Your task to perform on an android device: Search for logitech g910 on amazon, select the first entry, and add it to the cart. Image 0: 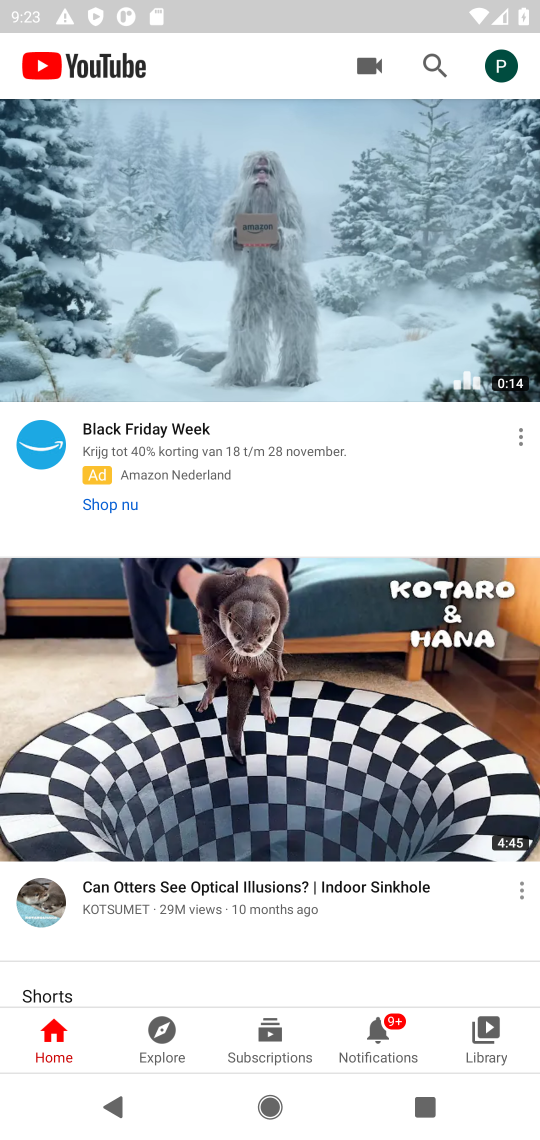
Step 0: press home button
Your task to perform on an android device: Search for logitech g910 on amazon, select the first entry, and add it to the cart. Image 1: 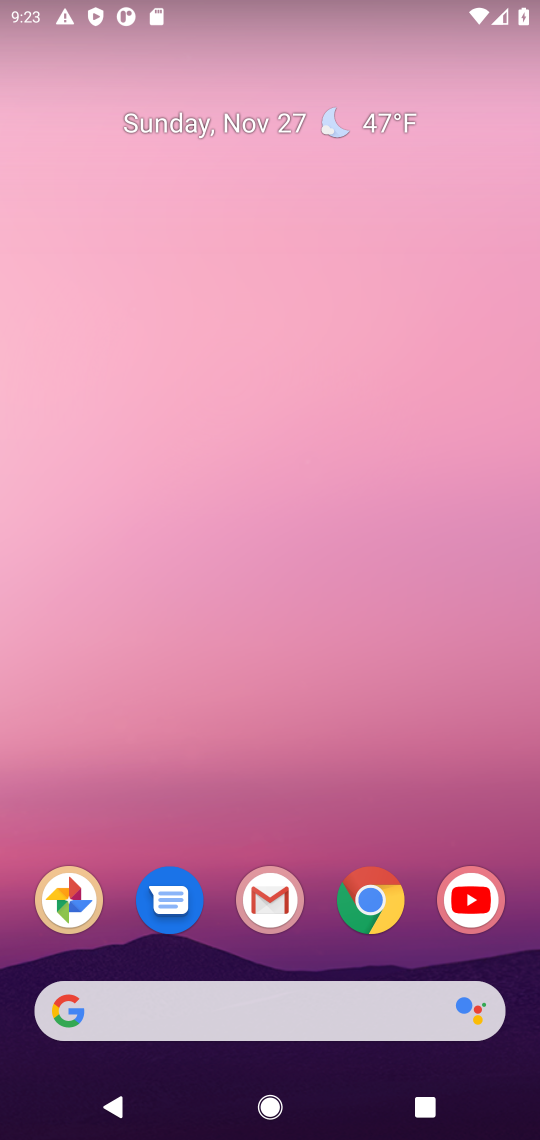
Step 1: click (366, 898)
Your task to perform on an android device: Search for logitech g910 on amazon, select the first entry, and add it to the cart. Image 2: 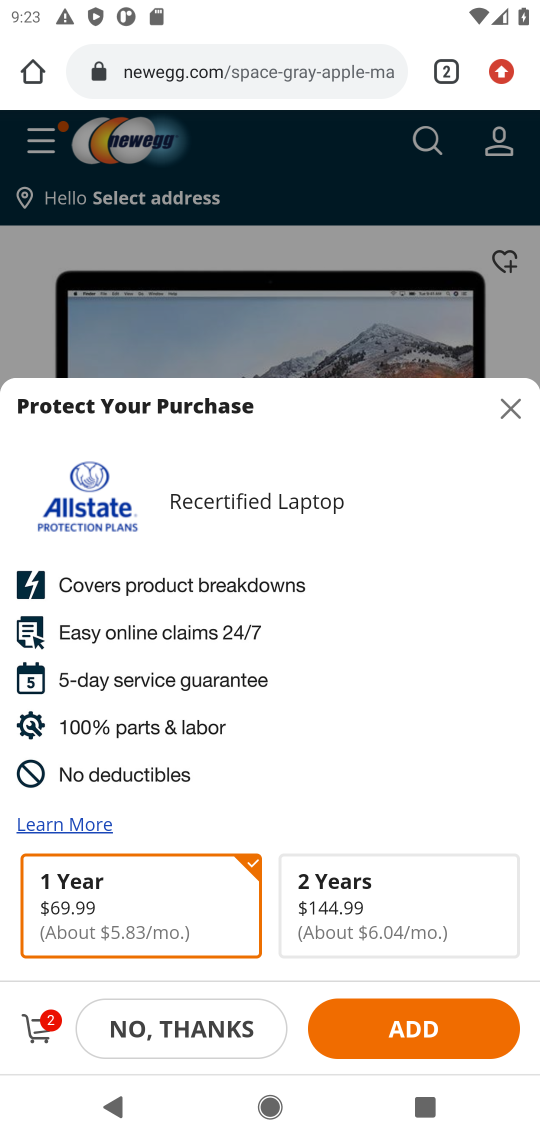
Step 2: click (258, 72)
Your task to perform on an android device: Search for logitech g910 on amazon, select the first entry, and add it to the cart. Image 3: 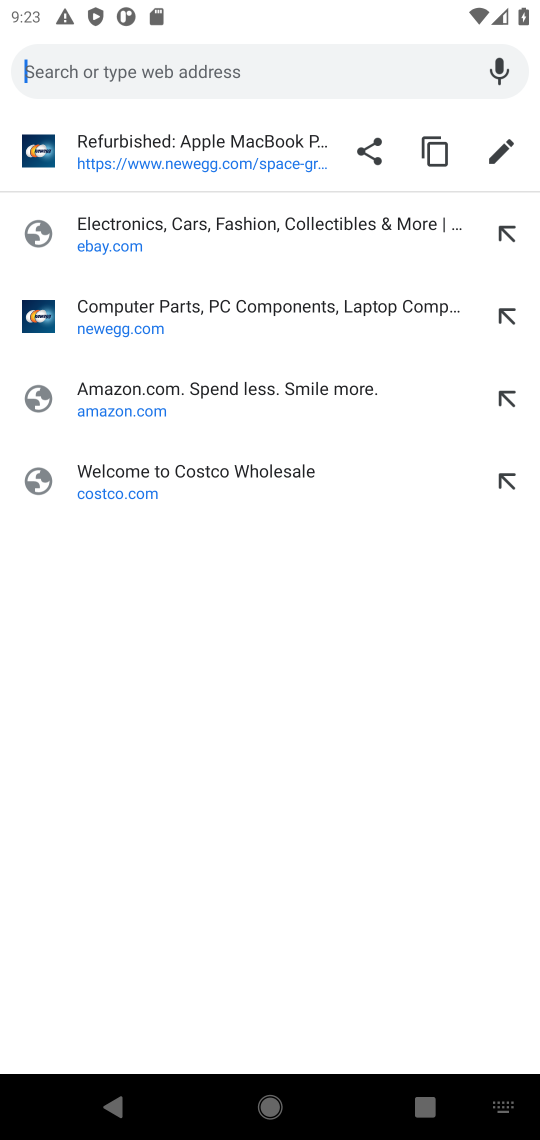
Step 3: click (91, 406)
Your task to perform on an android device: Search for logitech g910 on amazon, select the first entry, and add it to the cart. Image 4: 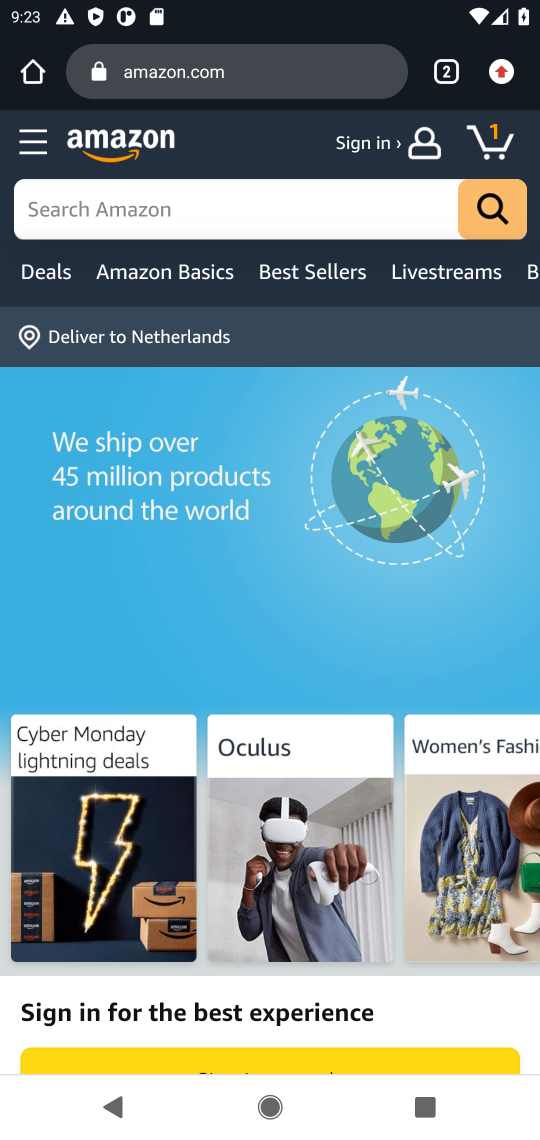
Step 4: click (120, 203)
Your task to perform on an android device: Search for logitech g910 on amazon, select the first entry, and add it to the cart. Image 5: 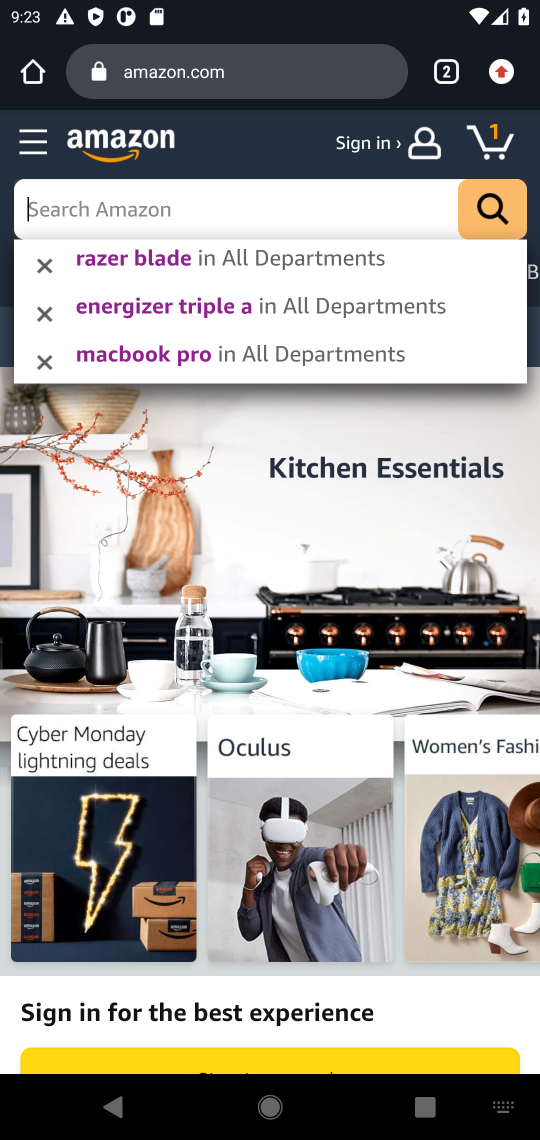
Step 5: type "logitech g910"
Your task to perform on an android device: Search for logitech g910 on amazon, select the first entry, and add it to the cart. Image 6: 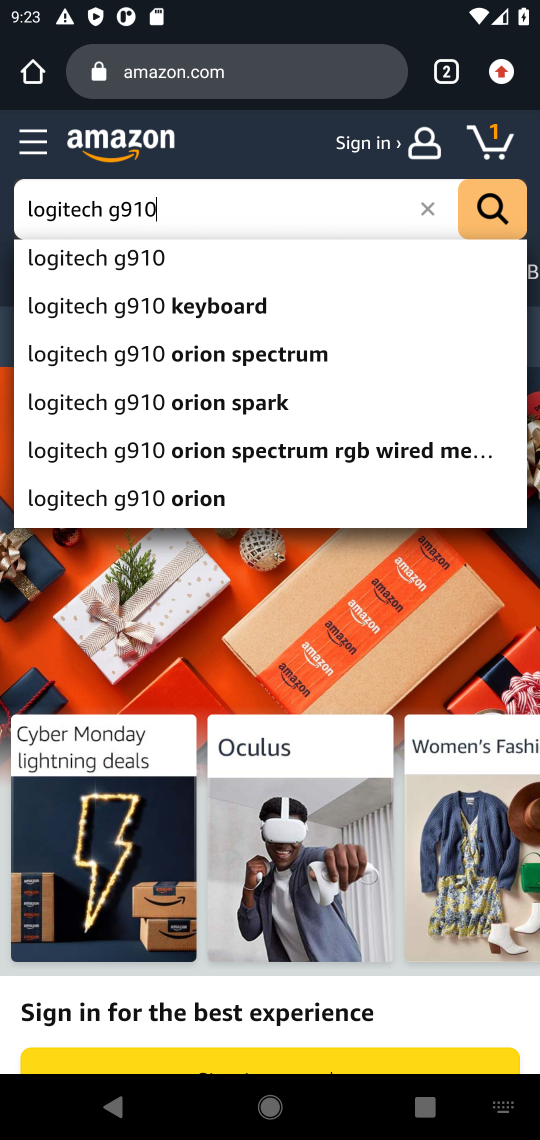
Step 6: click (94, 272)
Your task to perform on an android device: Search for logitech g910 on amazon, select the first entry, and add it to the cart. Image 7: 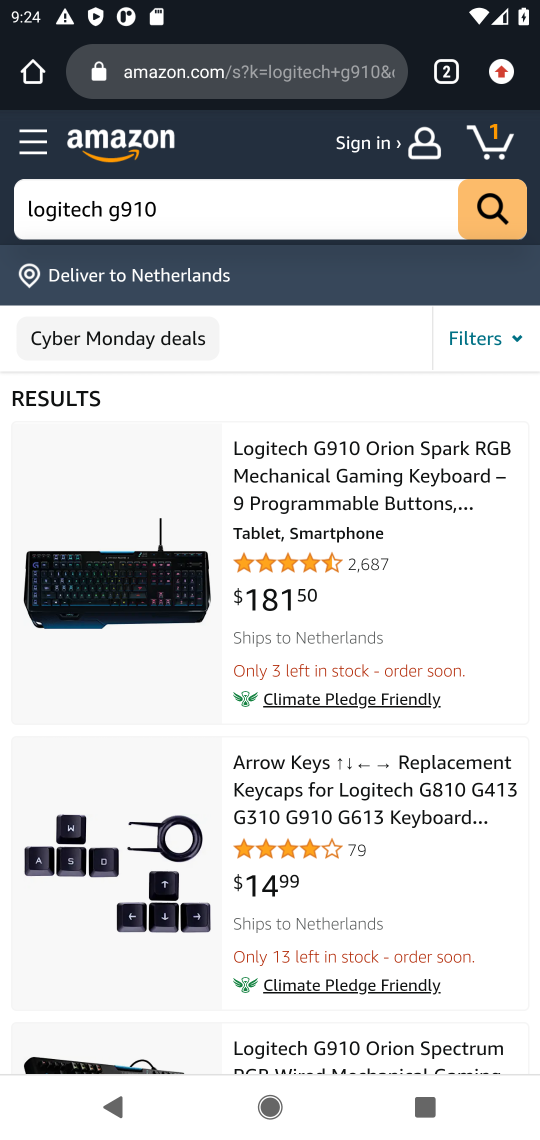
Step 7: click (341, 523)
Your task to perform on an android device: Search for logitech g910 on amazon, select the first entry, and add it to the cart. Image 8: 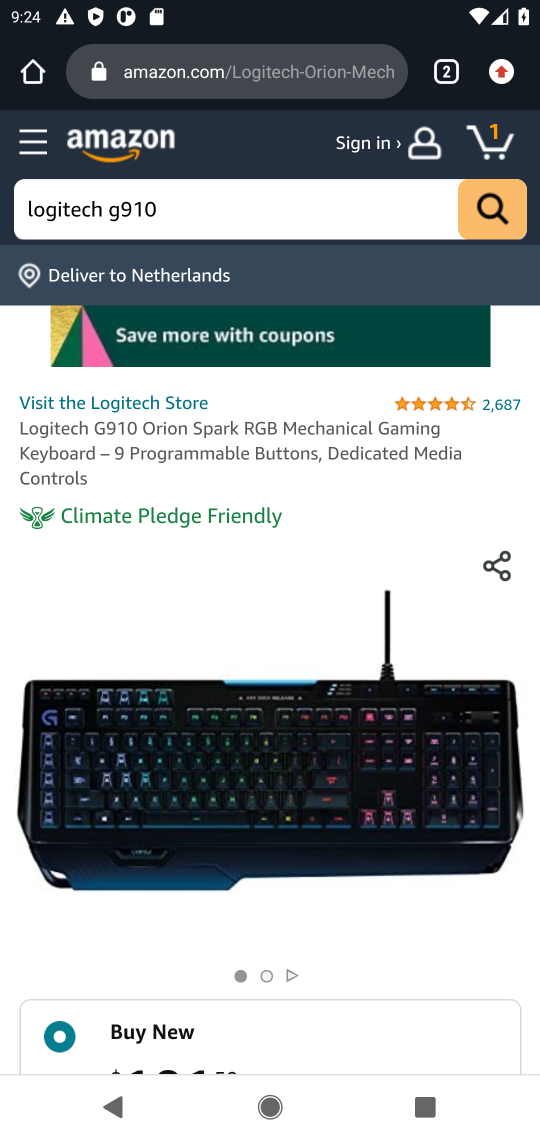
Step 8: drag from (273, 735) to (303, 427)
Your task to perform on an android device: Search for logitech g910 on amazon, select the first entry, and add it to the cart. Image 9: 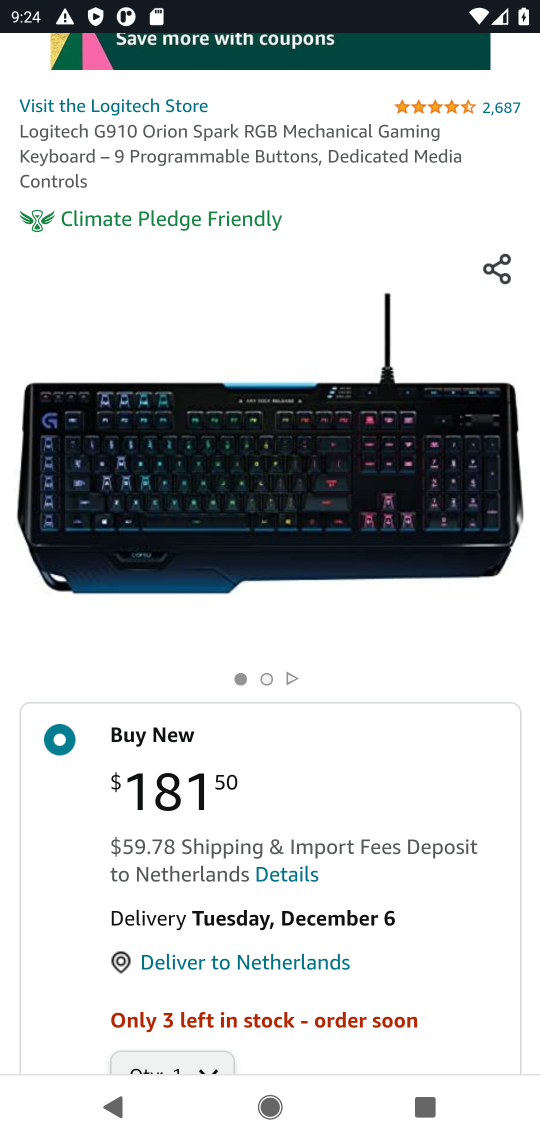
Step 9: drag from (284, 824) to (321, 484)
Your task to perform on an android device: Search for logitech g910 on amazon, select the first entry, and add it to the cart. Image 10: 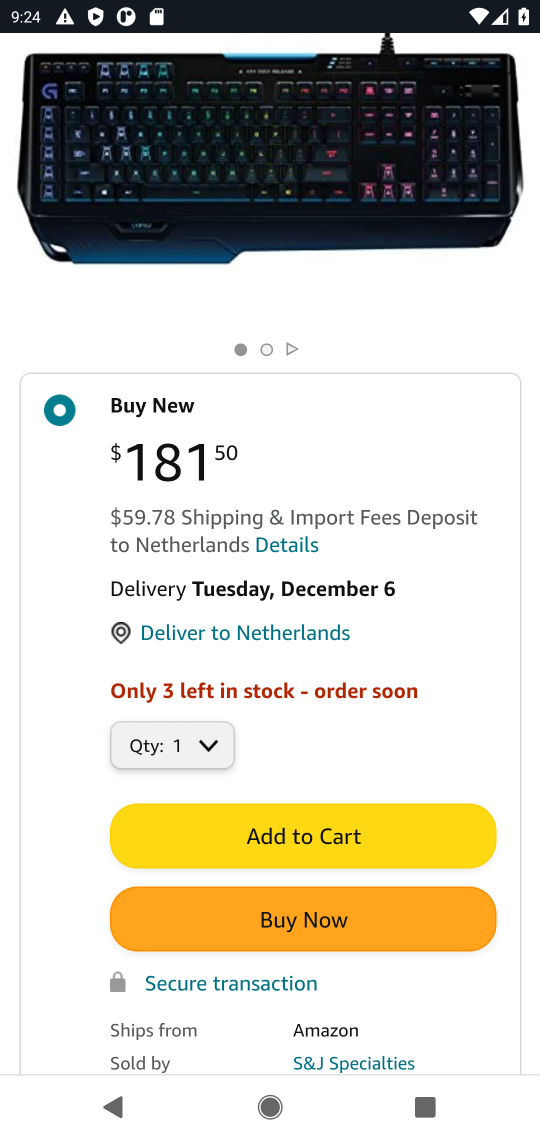
Step 10: click (288, 835)
Your task to perform on an android device: Search for logitech g910 on amazon, select the first entry, and add it to the cart. Image 11: 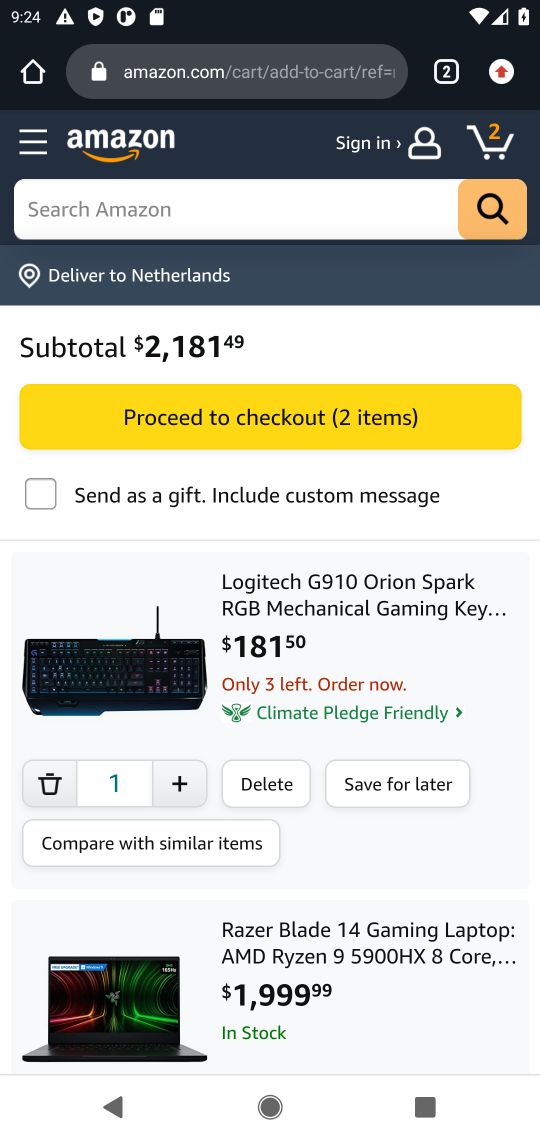
Step 11: task complete